Your task to perform on an android device: open a new tab in the chrome app Image 0: 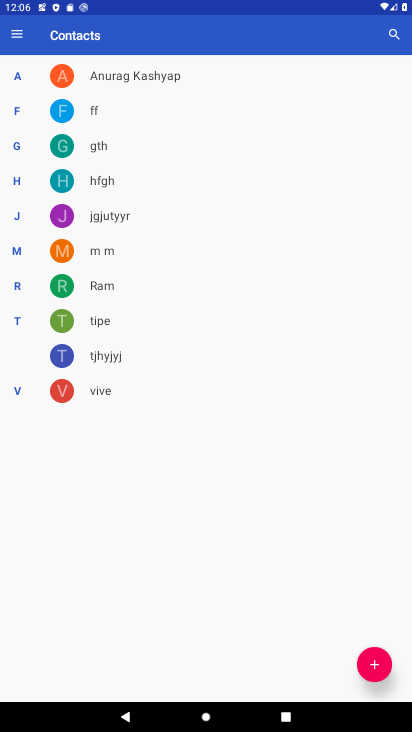
Step 0: press home button
Your task to perform on an android device: open a new tab in the chrome app Image 1: 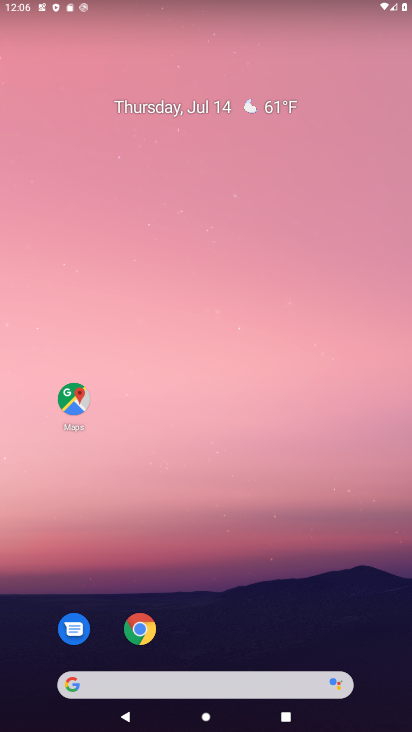
Step 1: click (145, 630)
Your task to perform on an android device: open a new tab in the chrome app Image 2: 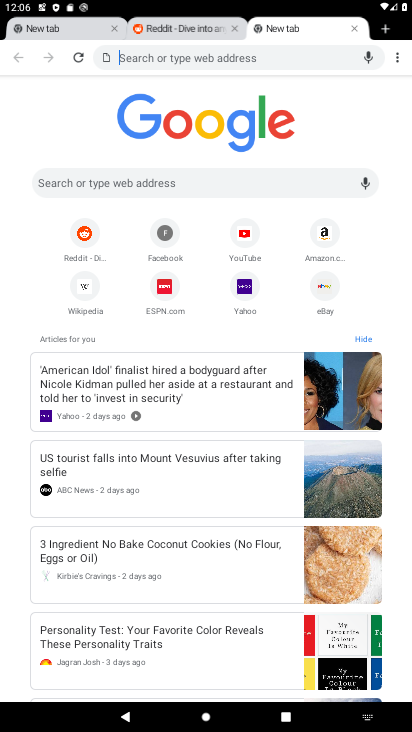
Step 2: click (398, 57)
Your task to perform on an android device: open a new tab in the chrome app Image 3: 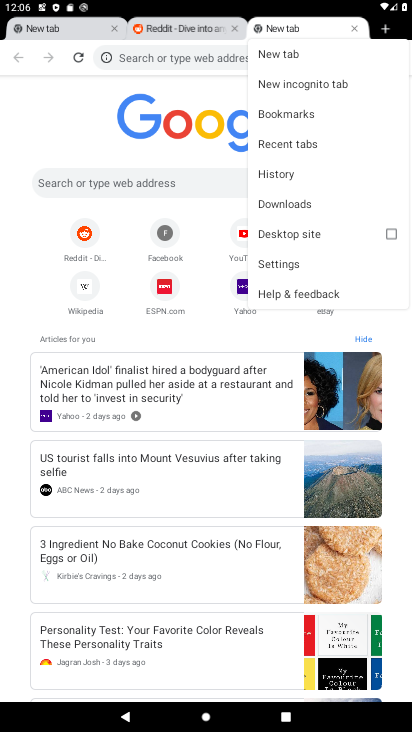
Step 3: click (290, 52)
Your task to perform on an android device: open a new tab in the chrome app Image 4: 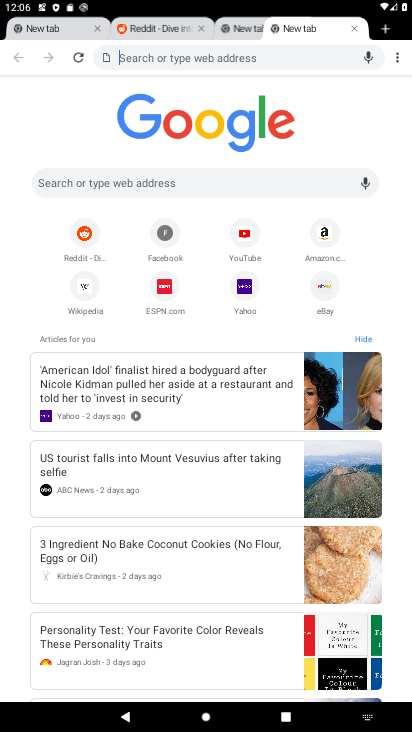
Step 4: task complete